Your task to perform on an android device: set default search engine in the chrome app Image 0: 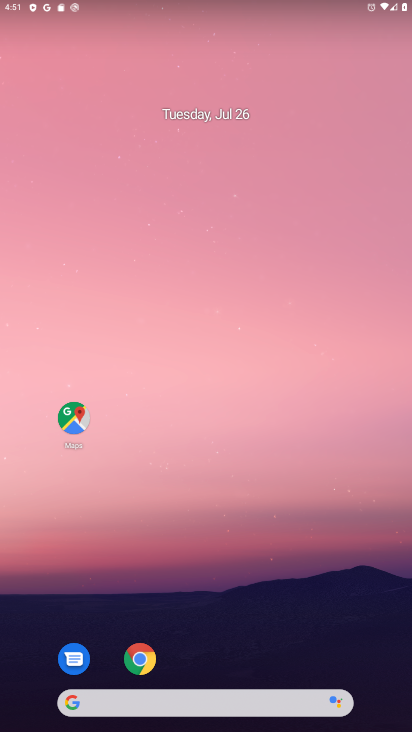
Step 0: click (140, 655)
Your task to perform on an android device: set default search engine in the chrome app Image 1: 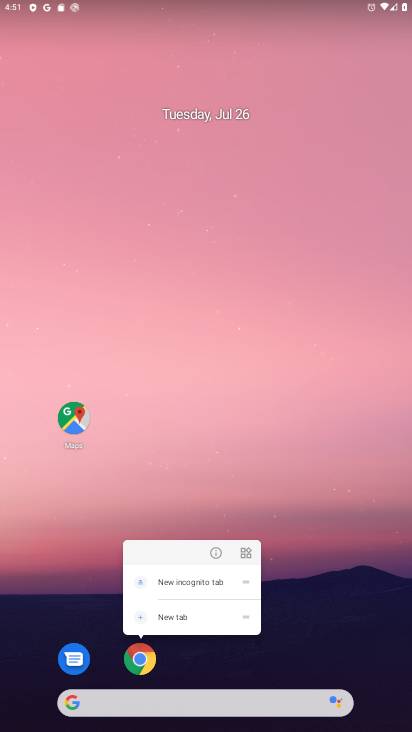
Step 1: click (139, 656)
Your task to perform on an android device: set default search engine in the chrome app Image 2: 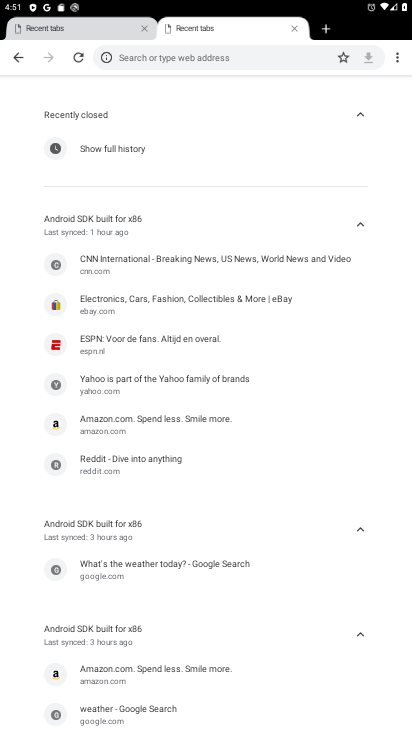
Step 2: click (390, 56)
Your task to perform on an android device: set default search engine in the chrome app Image 3: 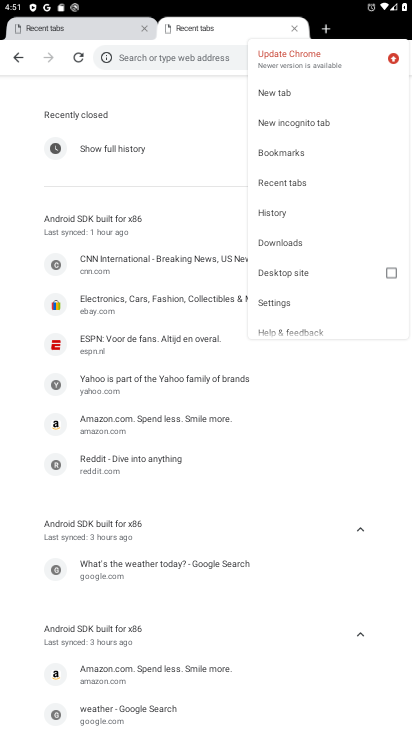
Step 3: click (296, 301)
Your task to perform on an android device: set default search engine in the chrome app Image 4: 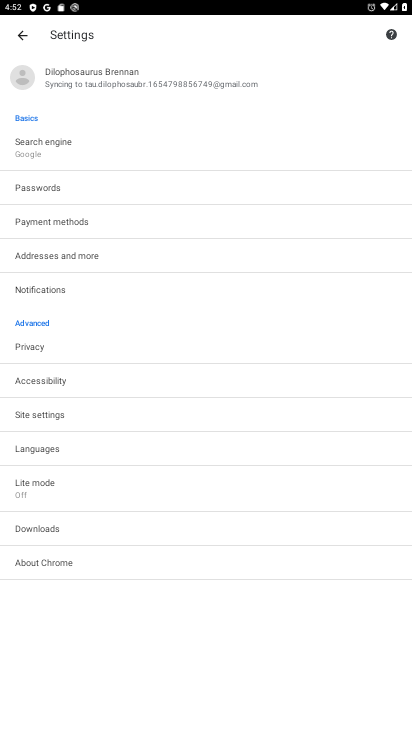
Step 4: click (67, 143)
Your task to perform on an android device: set default search engine in the chrome app Image 5: 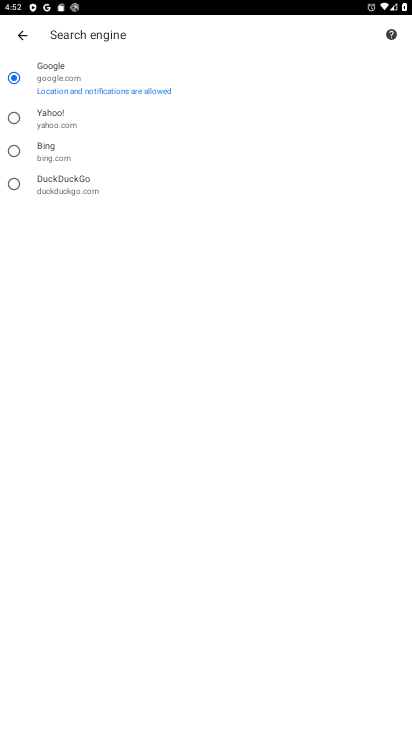
Step 5: click (11, 116)
Your task to perform on an android device: set default search engine in the chrome app Image 6: 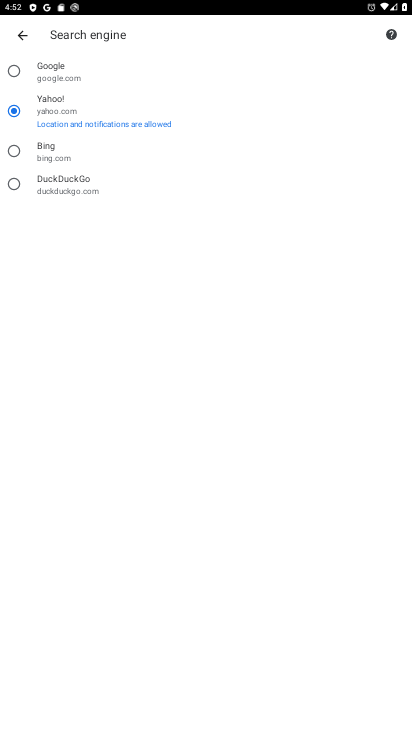
Step 6: task complete